Your task to perform on an android device: stop showing notifications on the lock screen Image 0: 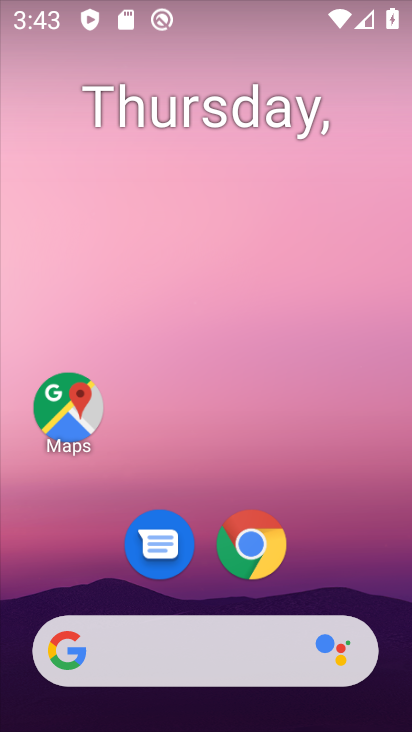
Step 0: drag from (322, 593) to (307, 197)
Your task to perform on an android device: stop showing notifications on the lock screen Image 1: 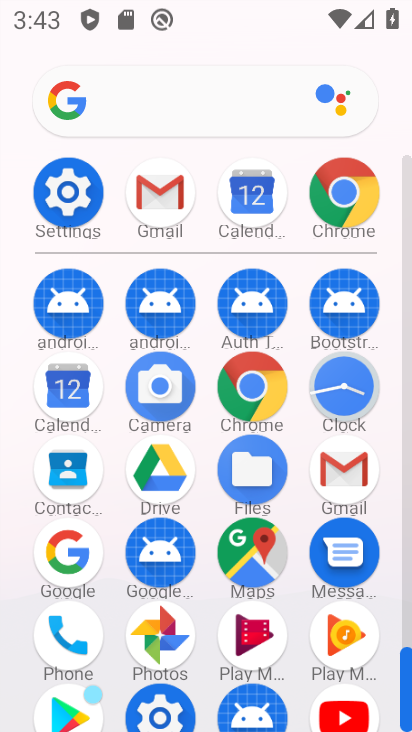
Step 1: click (66, 216)
Your task to perform on an android device: stop showing notifications on the lock screen Image 2: 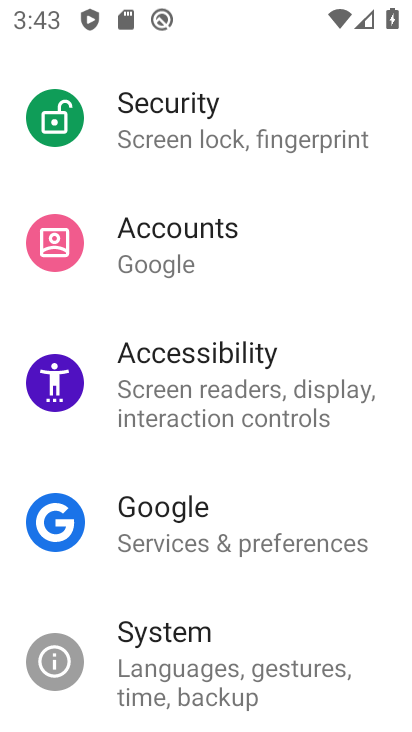
Step 2: drag from (272, 532) to (319, 255)
Your task to perform on an android device: stop showing notifications on the lock screen Image 3: 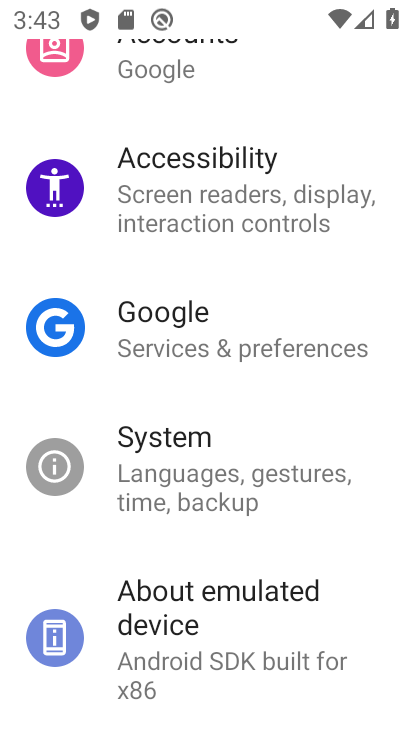
Step 3: drag from (356, 133) to (232, 722)
Your task to perform on an android device: stop showing notifications on the lock screen Image 4: 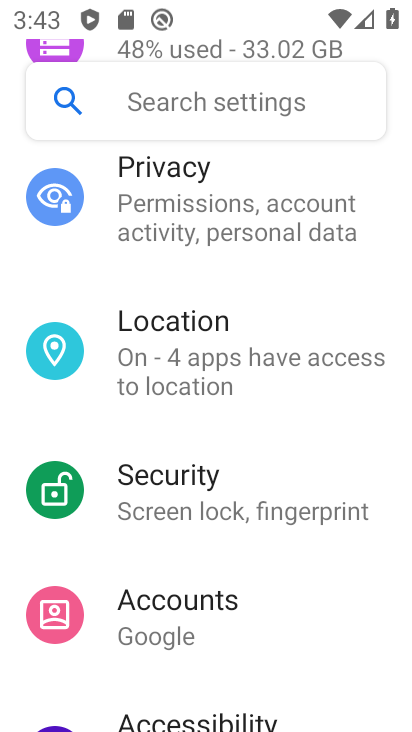
Step 4: drag from (232, 172) to (224, 721)
Your task to perform on an android device: stop showing notifications on the lock screen Image 5: 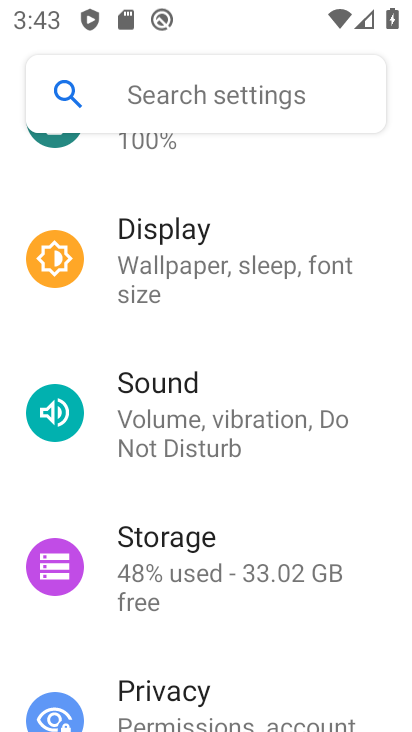
Step 5: drag from (187, 203) to (184, 726)
Your task to perform on an android device: stop showing notifications on the lock screen Image 6: 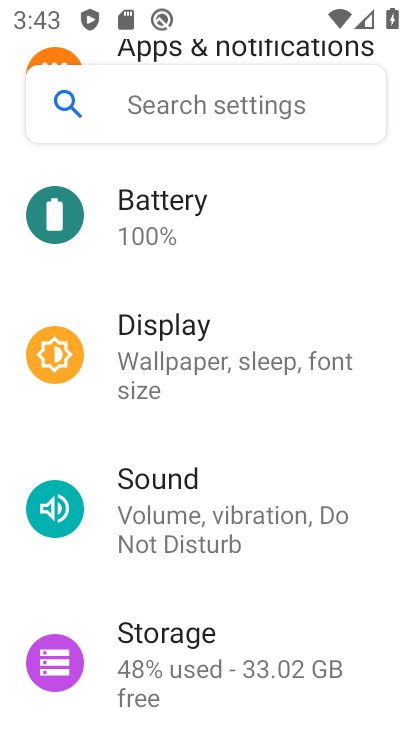
Step 6: drag from (171, 267) to (122, 701)
Your task to perform on an android device: stop showing notifications on the lock screen Image 7: 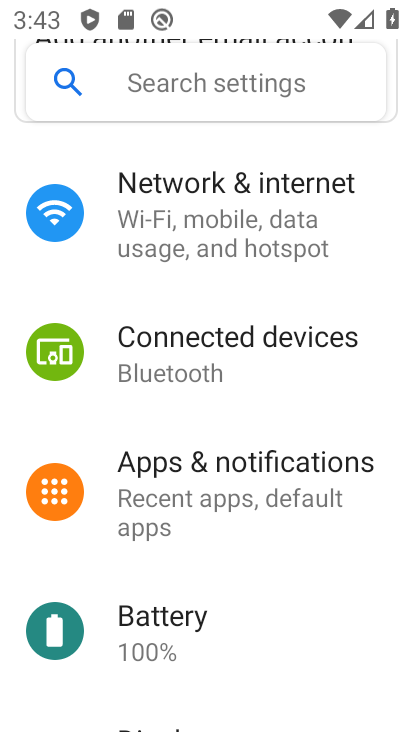
Step 7: click (129, 493)
Your task to perform on an android device: stop showing notifications on the lock screen Image 8: 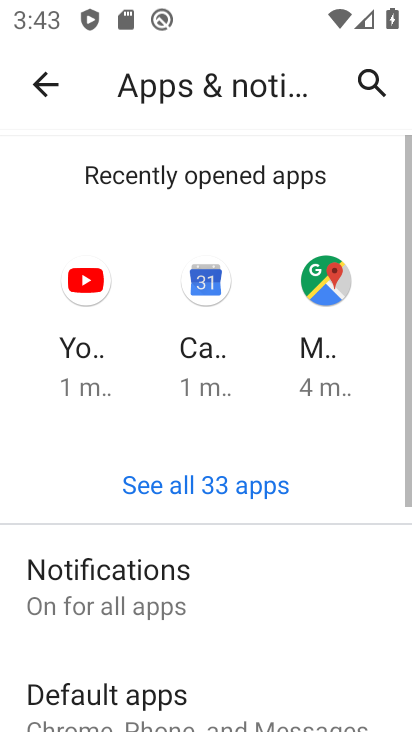
Step 8: drag from (153, 588) to (221, 260)
Your task to perform on an android device: stop showing notifications on the lock screen Image 9: 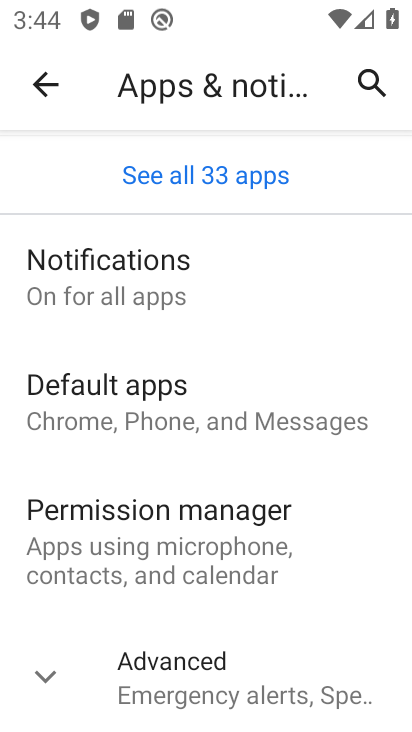
Step 9: click (144, 285)
Your task to perform on an android device: stop showing notifications on the lock screen Image 10: 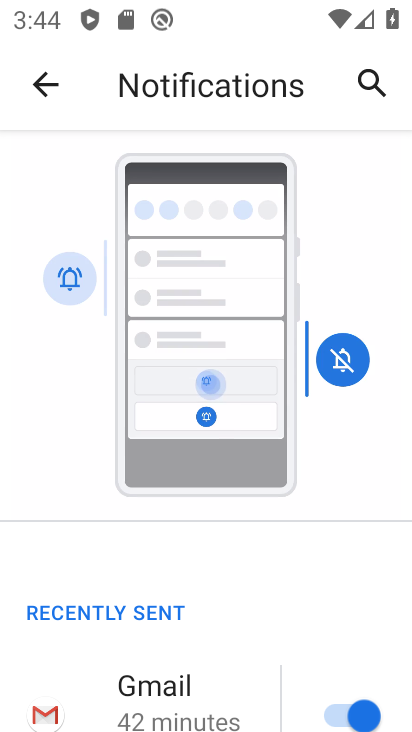
Step 10: drag from (93, 595) to (116, 56)
Your task to perform on an android device: stop showing notifications on the lock screen Image 11: 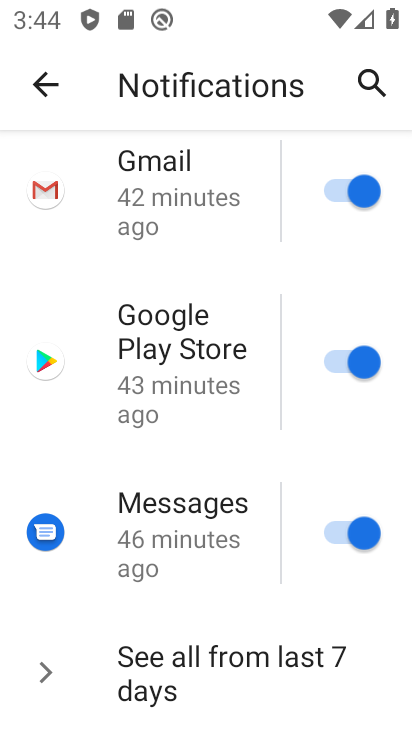
Step 11: drag from (223, 637) to (243, 9)
Your task to perform on an android device: stop showing notifications on the lock screen Image 12: 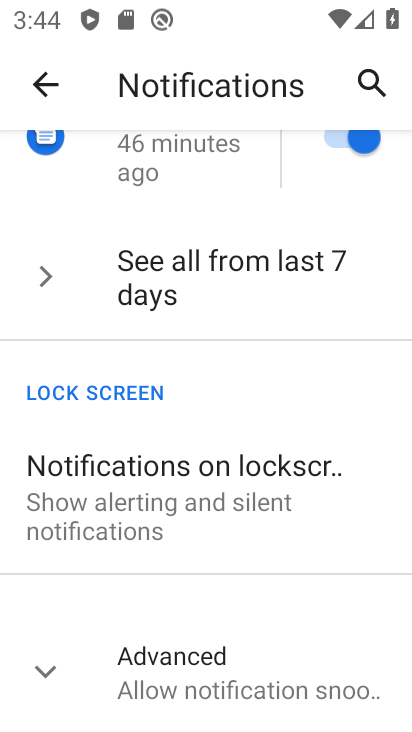
Step 12: click (146, 680)
Your task to perform on an android device: stop showing notifications on the lock screen Image 13: 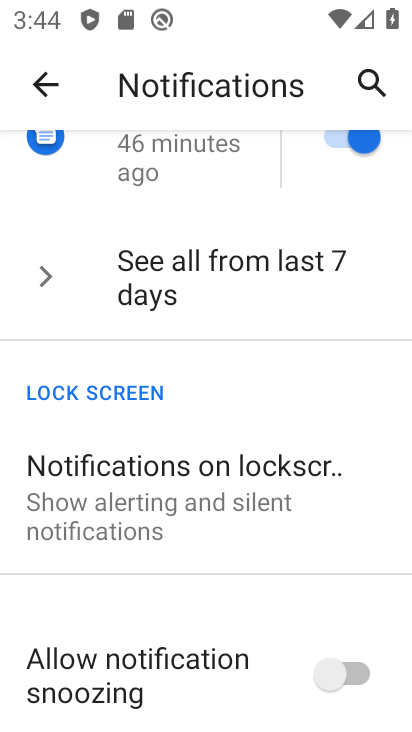
Step 13: drag from (145, 680) to (288, 96)
Your task to perform on an android device: stop showing notifications on the lock screen Image 14: 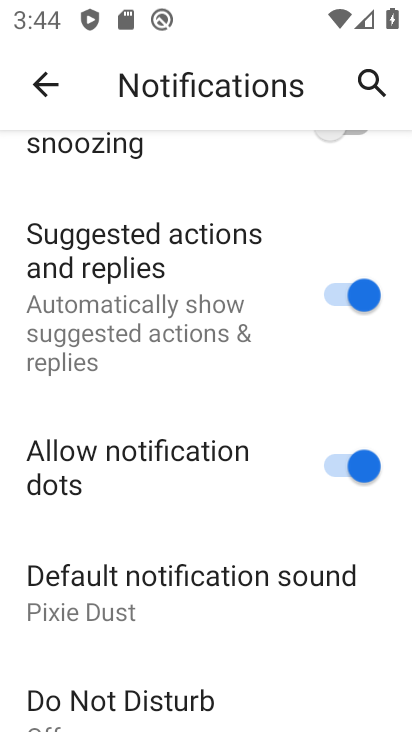
Step 14: drag from (286, 262) to (194, 691)
Your task to perform on an android device: stop showing notifications on the lock screen Image 15: 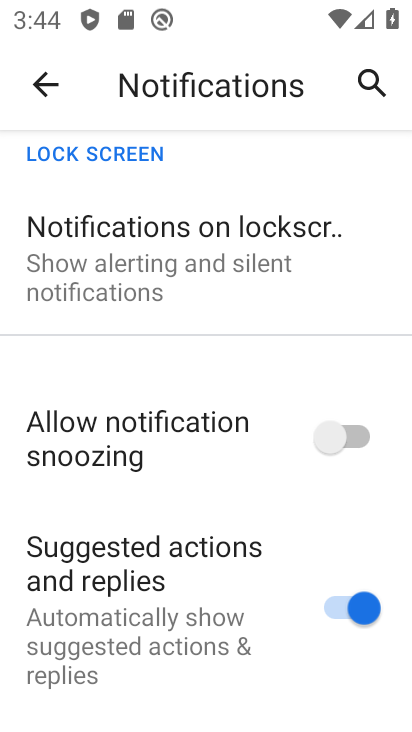
Step 15: click (179, 241)
Your task to perform on an android device: stop showing notifications on the lock screen Image 16: 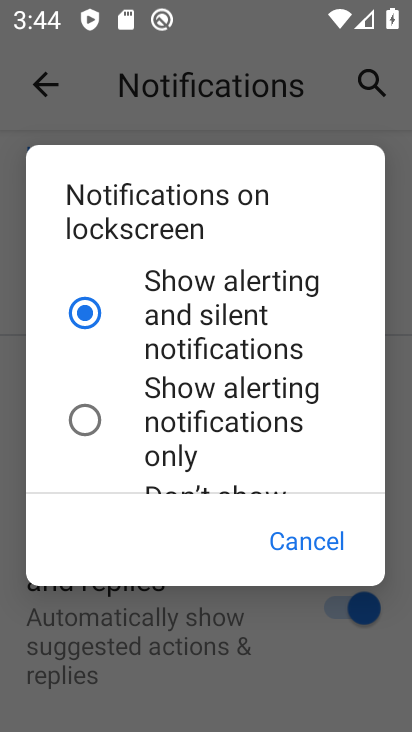
Step 16: drag from (129, 420) to (115, 155)
Your task to perform on an android device: stop showing notifications on the lock screen Image 17: 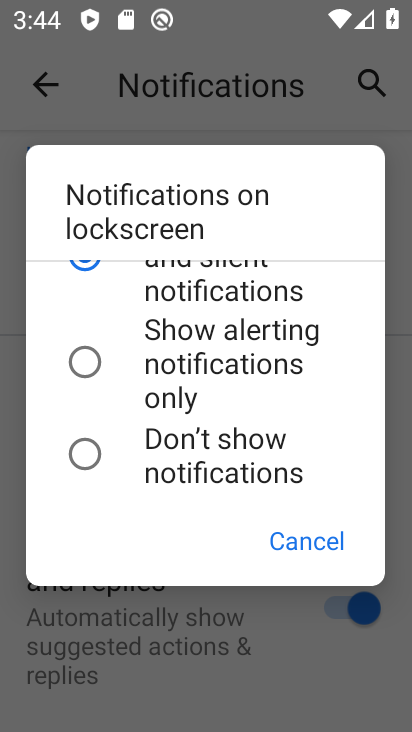
Step 17: click (92, 456)
Your task to perform on an android device: stop showing notifications on the lock screen Image 18: 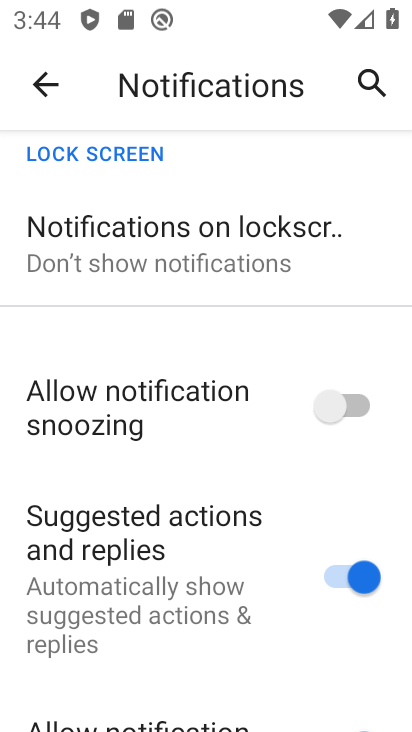
Step 18: task complete